Your task to perform on an android device: toggle show notifications on the lock screen Image 0: 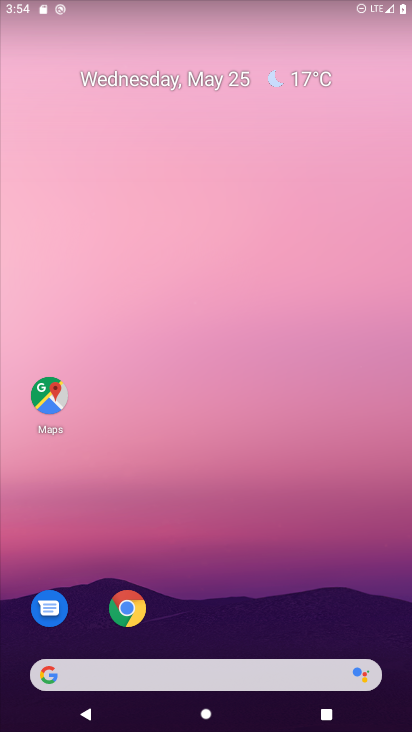
Step 0: drag from (330, 611) to (308, 7)
Your task to perform on an android device: toggle show notifications on the lock screen Image 1: 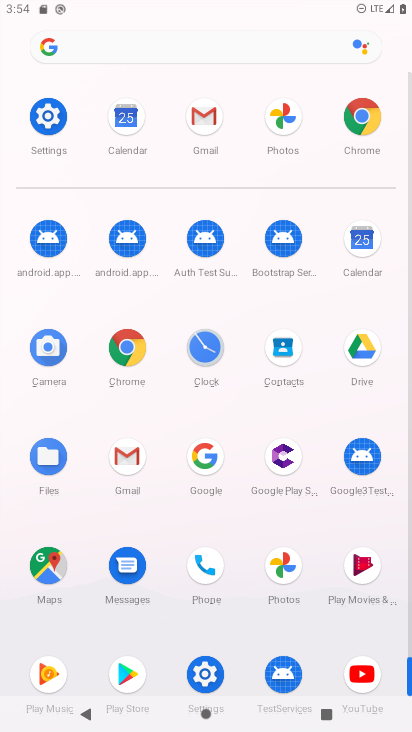
Step 1: click (201, 671)
Your task to perform on an android device: toggle show notifications on the lock screen Image 2: 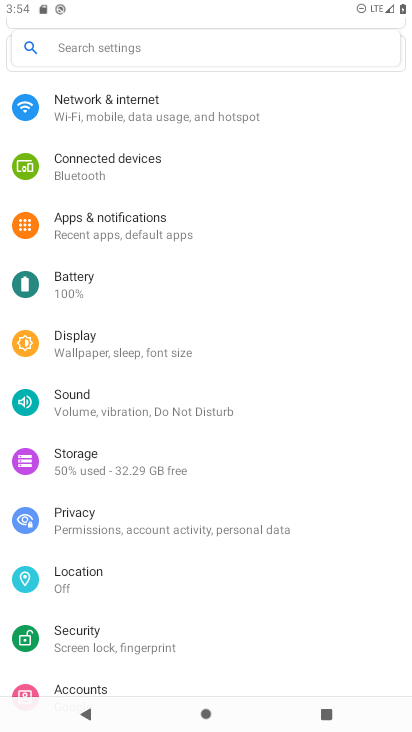
Step 2: click (110, 216)
Your task to perform on an android device: toggle show notifications on the lock screen Image 3: 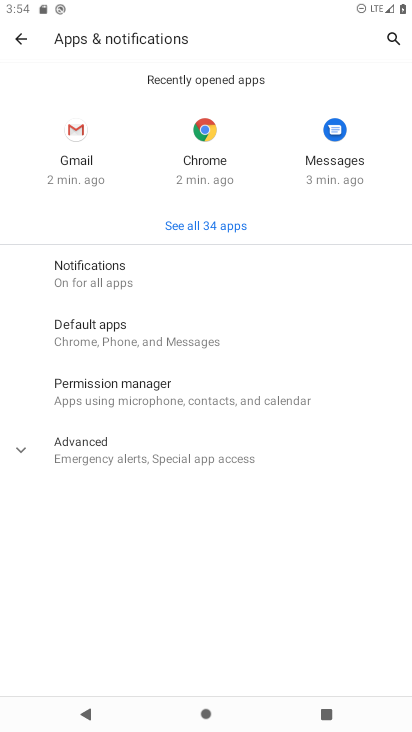
Step 3: click (84, 267)
Your task to perform on an android device: toggle show notifications on the lock screen Image 4: 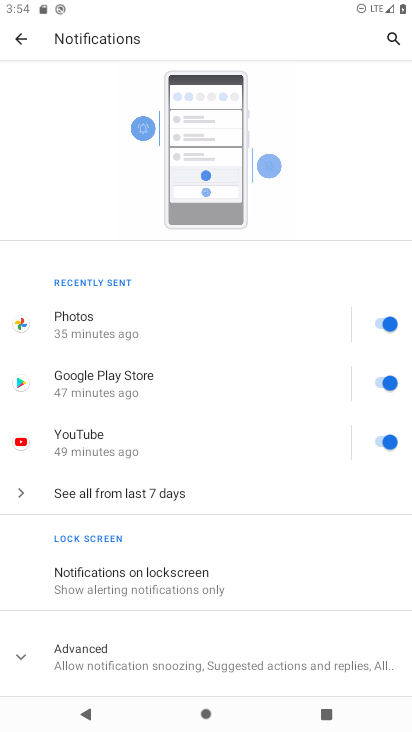
Step 4: drag from (221, 588) to (213, 275)
Your task to perform on an android device: toggle show notifications on the lock screen Image 5: 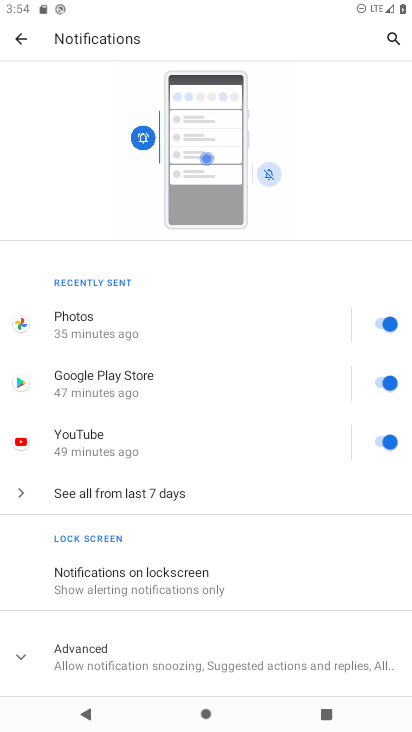
Step 5: click (139, 596)
Your task to perform on an android device: toggle show notifications on the lock screen Image 6: 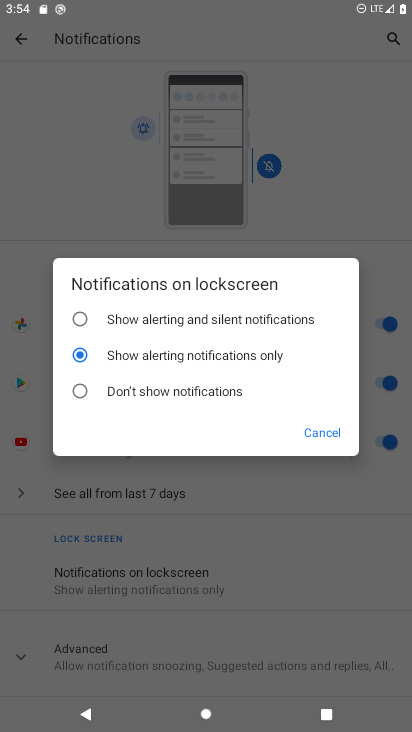
Step 6: click (78, 317)
Your task to perform on an android device: toggle show notifications on the lock screen Image 7: 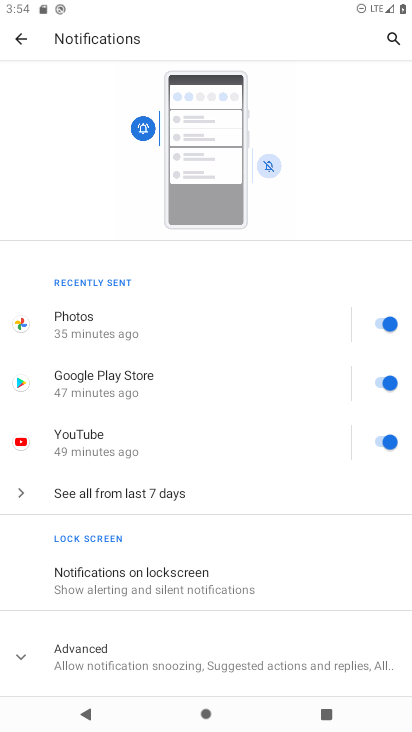
Step 7: task complete